Your task to perform on an android device: check the backup settings in the google photos Image 0: 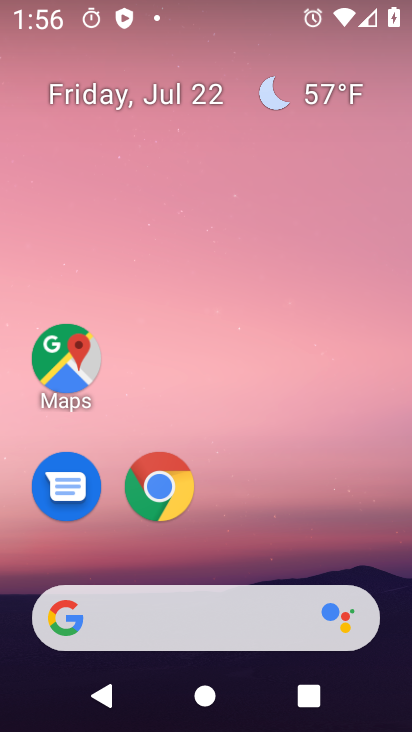
Step 0: press home button
Your task to perform on an android device: check the backup settings in the google photos Image 1: 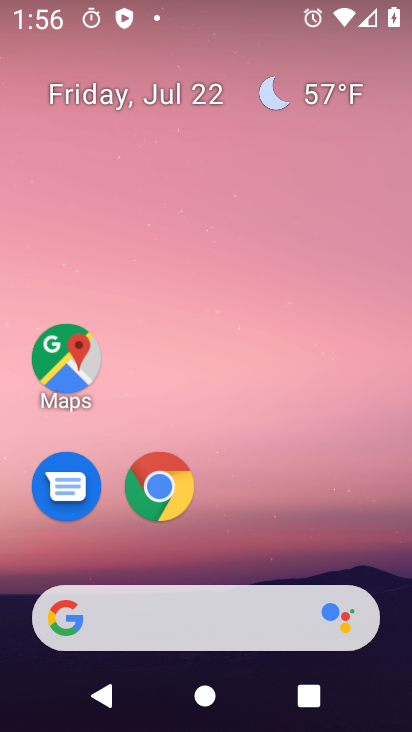
Step 1: drag from (338, 530) to (326, 106)
Your task to perform on an android device: check the backup settings in the google photos Image 2: 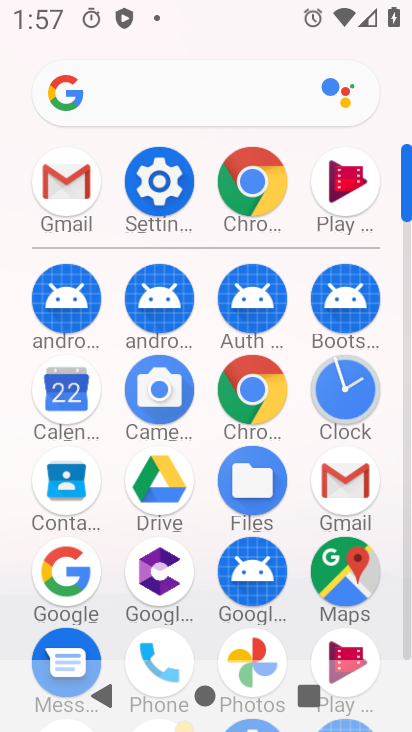
Step 2: drag from (397, 414) to (406, 207)
Your task to perform on an android device: check the backup settings in the google photos Image 3: 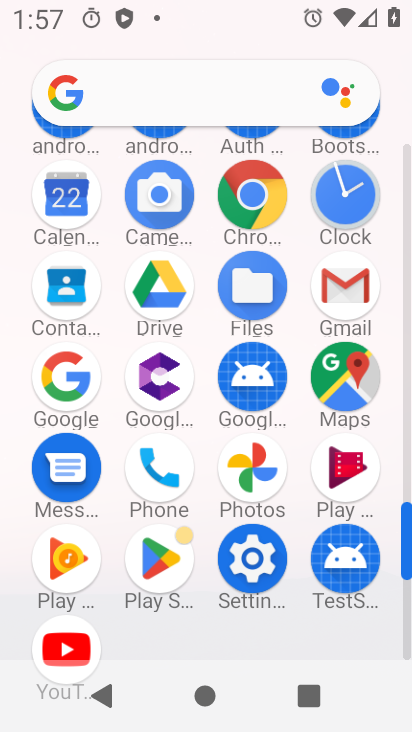
Step 3: click (253, 462)
Your task to perform on an android device: check the backup settings in the google photos Image 4: 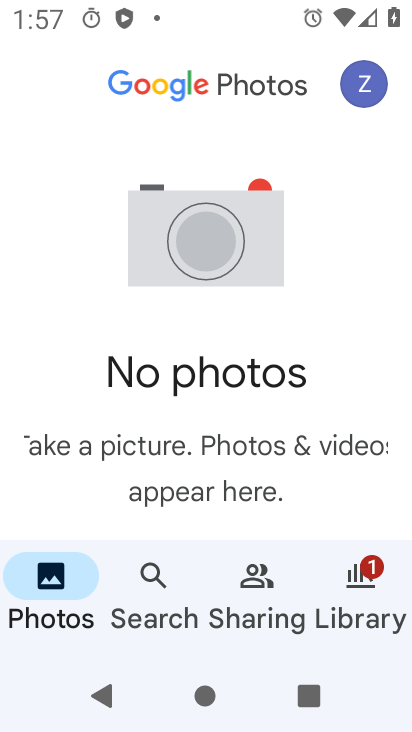
Step 4: click (366, 85)
Your task to perform on an android device: check the backup settings in the google photos Image 5: 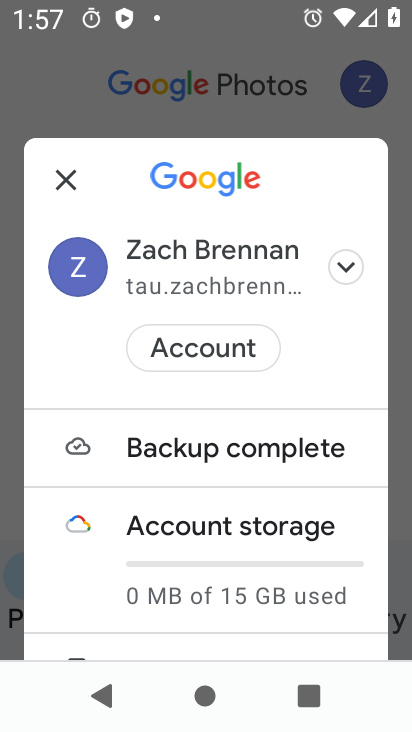
Step 5: drag from (338, 452) to (345, 349)
Your task to perform on an android device: check the backup settings in the google photos Image 6: 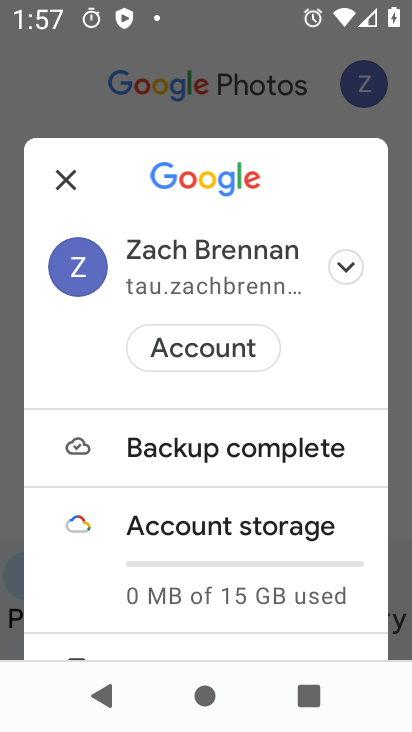
Step 6: drag from (319, 508) to (311, 340)
Your task to perform on an android device: check the backup settings in the google photos Image 7: 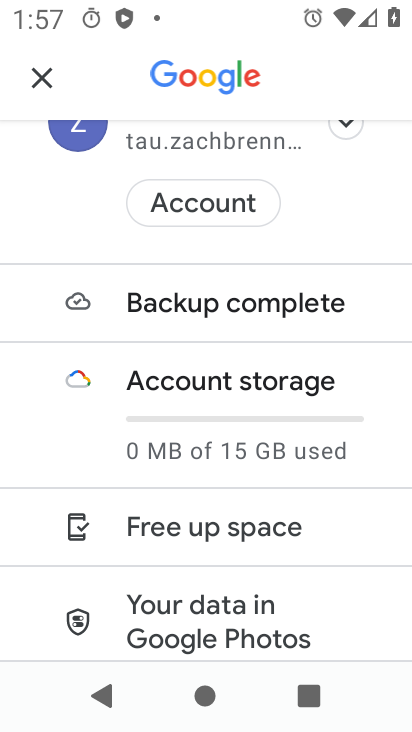
Step 7: drag from (318, 537) to (319, 417)
Your task to perform on an android device: check the backup settings in the google photos Image 8: 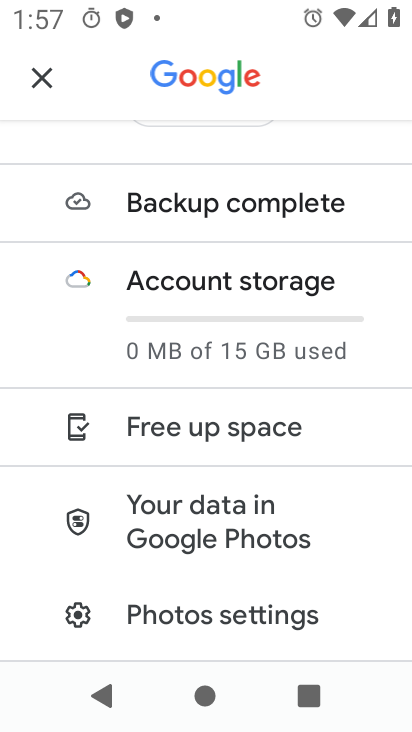
Step 8: drag from (314, 559) to (314, 326)
Your task to perform on an android device: check the backup settings in the google photos Image 9: 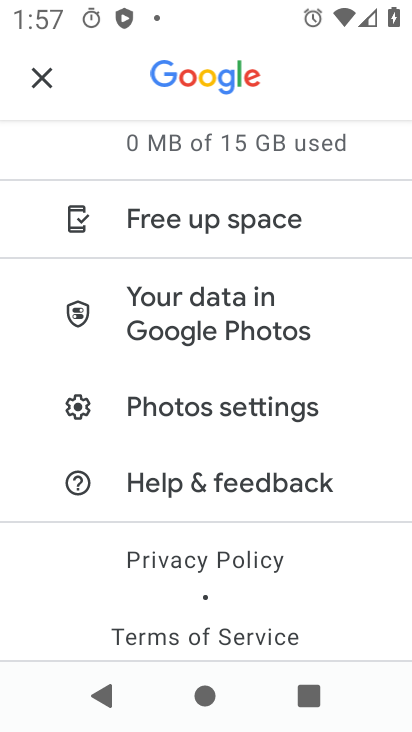
Step 9: click (309, 406)
Your task to perform on an android device: check the backup settings in the google photos Image 10: 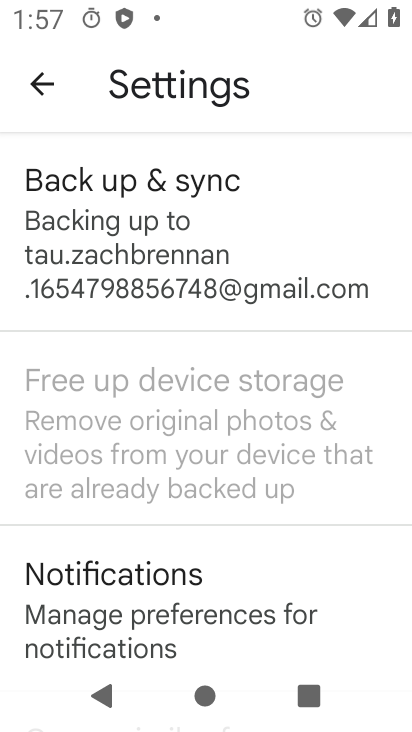
Step 10: click (277, 262)
Your task to perform on an android device: check the backup settings in the google photos Image 11: 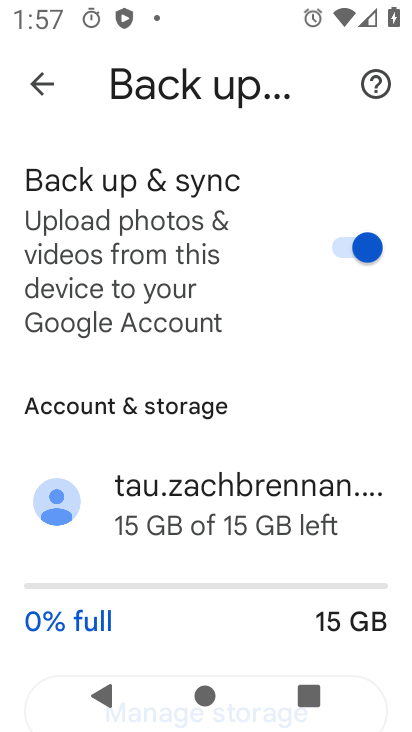
Step 11: task complete